Your task to perform on an android device: open device folders in google photos Image 0: 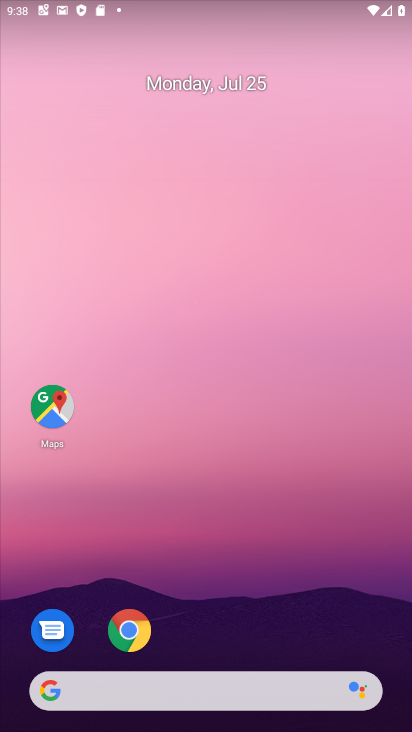
Step 0: press home button
Your task to perform on an android device: open device folders in google photos Image 1: 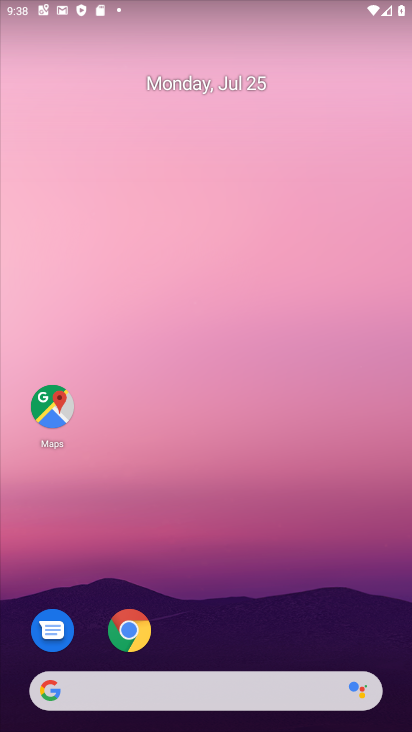
Step 1: drag from (242, 615) to (210, 3)
Your task to perform on an android device: open device folders in google photos Image 2: 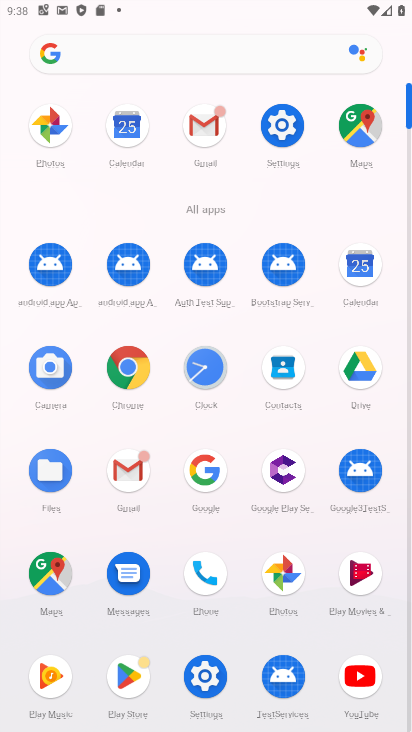
Step 2: click (280, 583)
Your task to perform on an android device: open device folders in google photos Image 3: 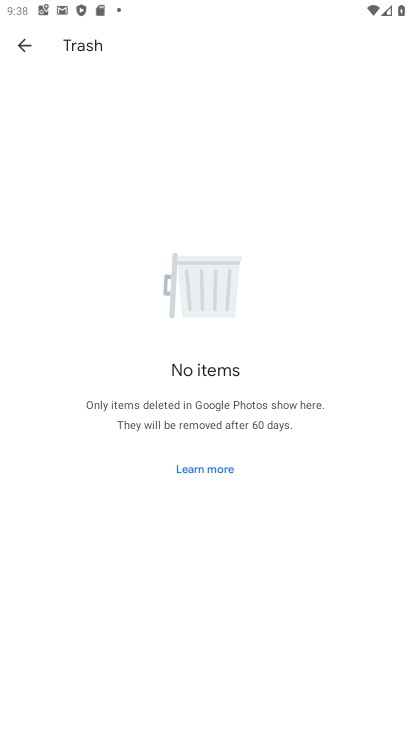
Step 3: click (20, 44)
Your task to perform on an android device: open device folders in google photos Image 4: 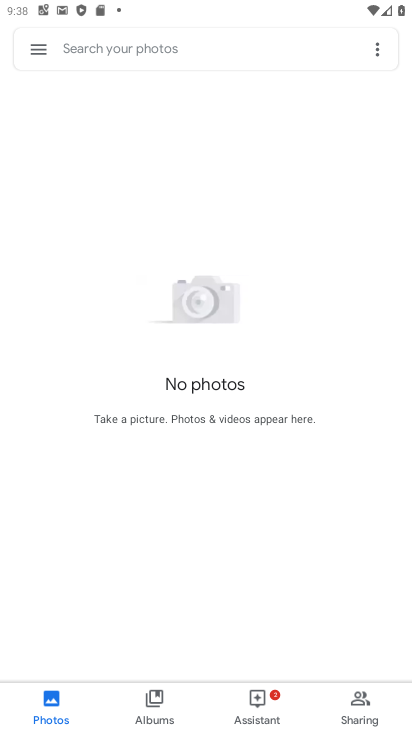
Step 4: click (151, 697)
Your task to perform on an android device: open device folders in google photos Image 5: 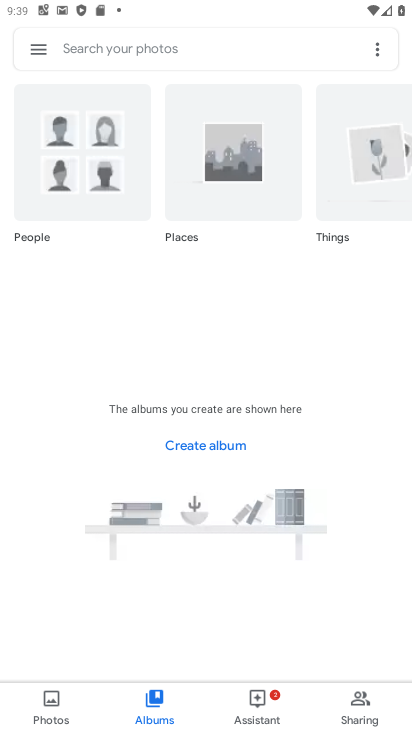
Step 5: click (100, 49)
Your task to perform on an android device: open device folders in google photos Image 6: 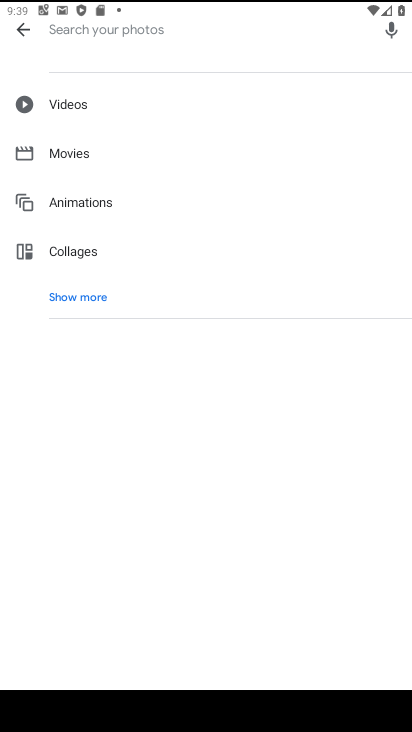
Step 6: type "device folders"
Your task to perform on an android device: open device folders in google photos Image 7: 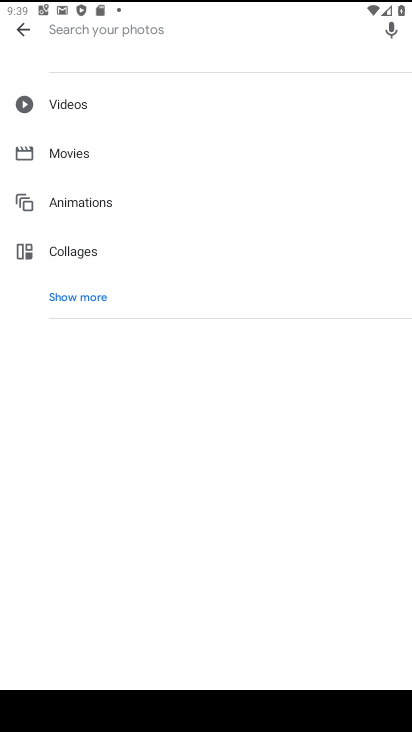
Step 7: click (86, 38)
Your task to perform on an android device: open device folders in google photos Image 8: 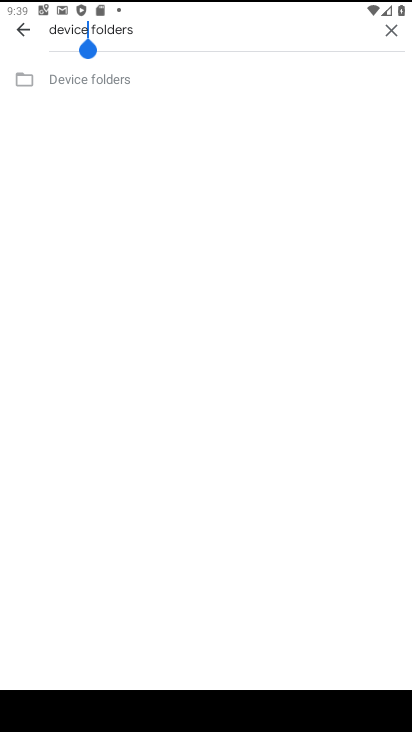
Step 8: click (50, 76)
Your task to perform on an android device: open device folders in google photos Image 9: 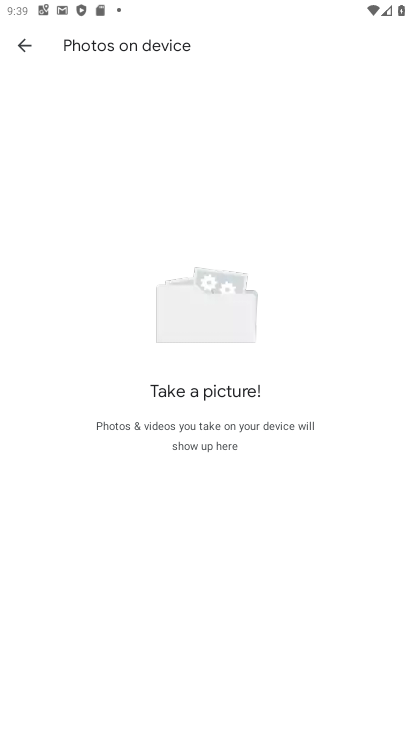
Step 9: task complete